Your task to perform on an android device: Go to Google maps Image 0: 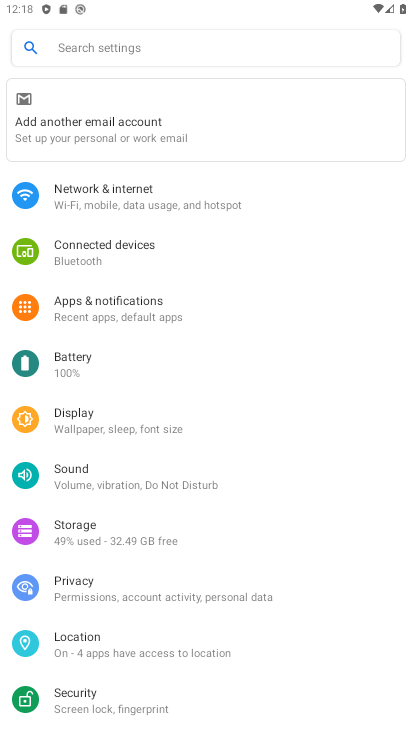
Step 0: press home button
Your task to perform on an android device: Go to Google maps Image 1: 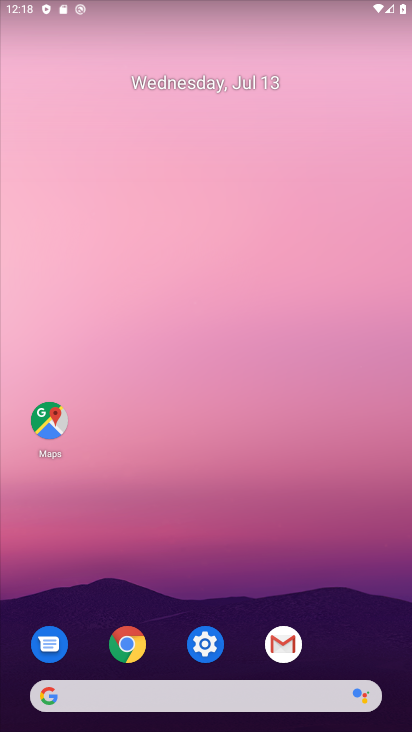
Step 1: click (34, 418)
Your task to perform on an android device: Go to Google maps Image 2: 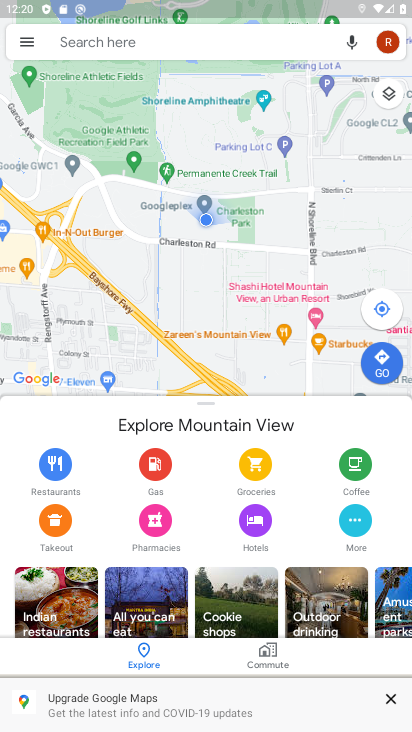
Step 2: task complete